Your task to perform on an android device: all mails in gmail Image 0: 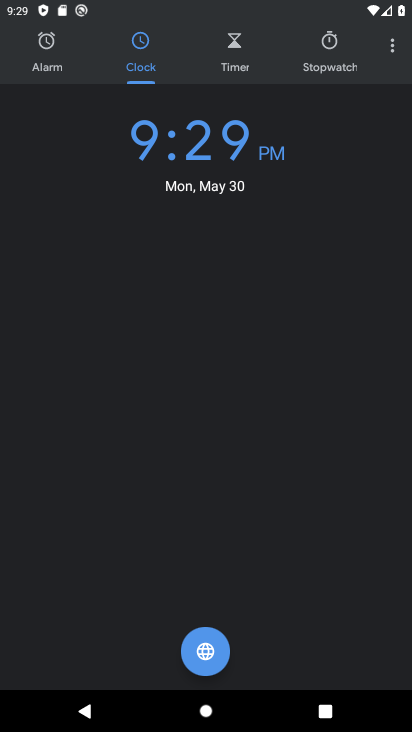
Step 0: press home button
Your task to perform on an android device: all mails in gmail Image 1: 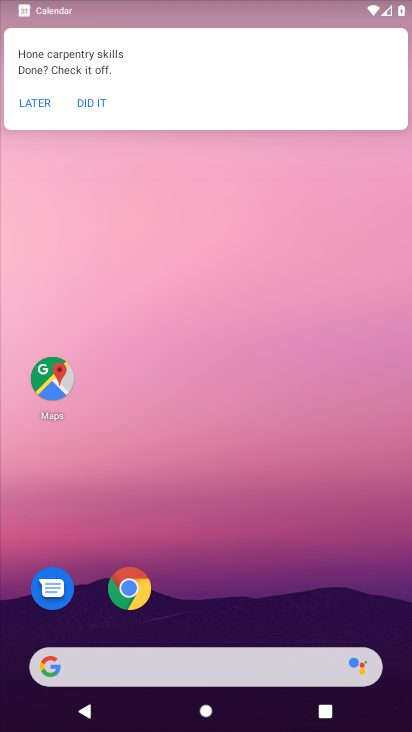
Step 1: drag from (209, 593) to (202, 2)
Your task to perform on an android device: all mails in gmail Image 2: 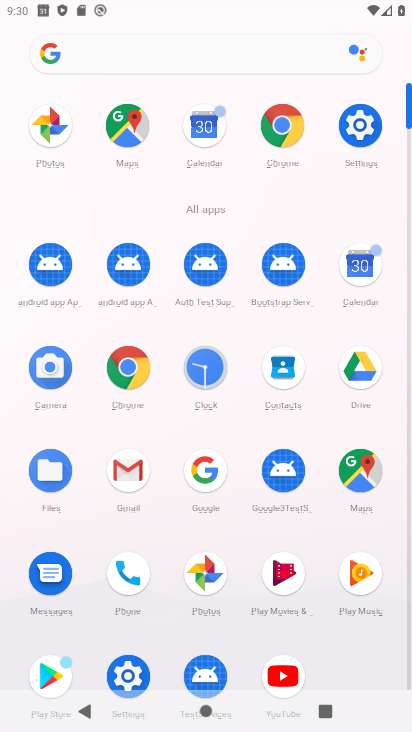
Step 2: click (116, 469)
Your task to perform on an android device: all mails in gmail Image 3: 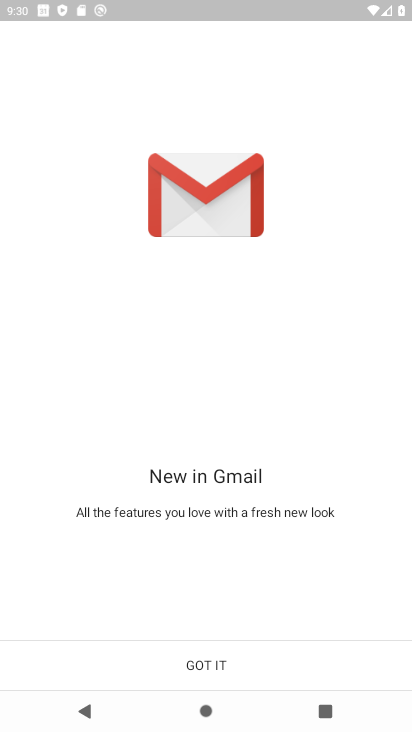
Step 3: click (230, 666)
Your task to perform on an android device: all mails in gmail Image 4: 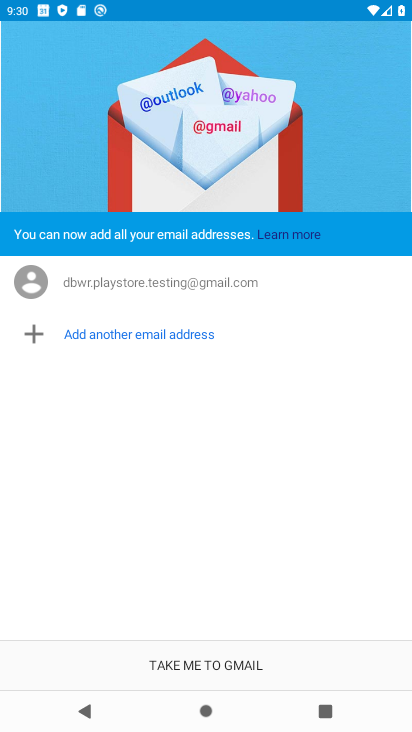
Step 4: click (239, 657)
Your task to perform on an android device: all mails in gmail Image 5: 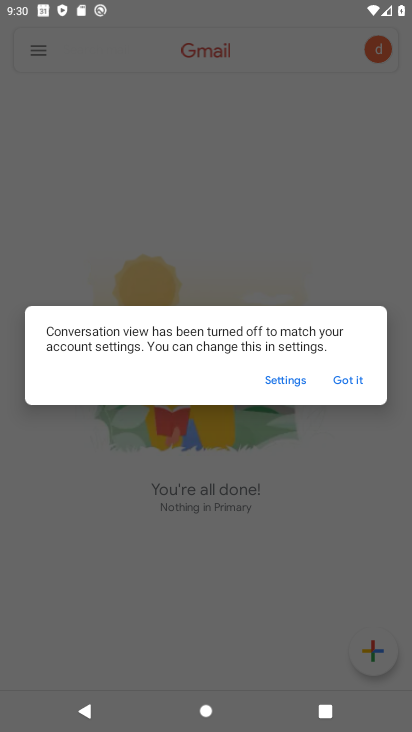
Step 5: click (346, 379)
Your task to perform on an android device: all mails in gmail Image 6: 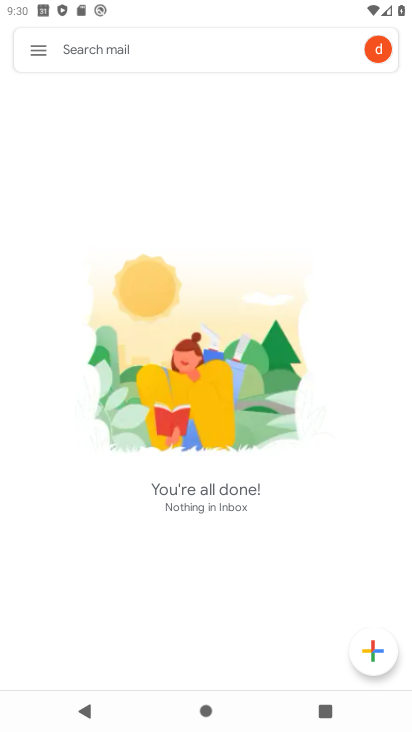
Step 6: click (49, 49)
Your task to perform on an android device: all mails in gmail Image 7: 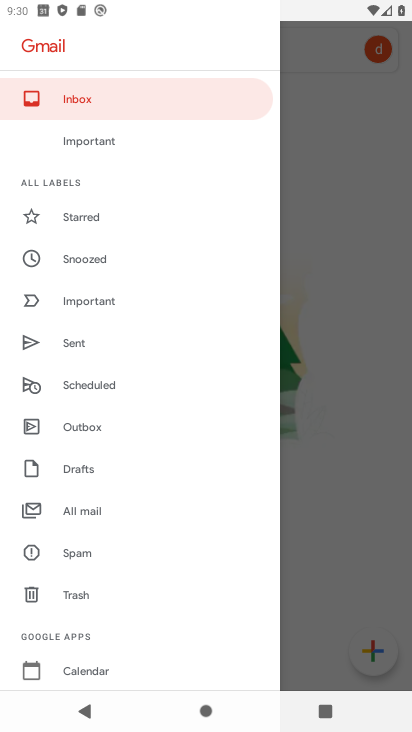
Step 7: click (93, 509)
Your task to perform on an android device: all mails in gmail Image 8: 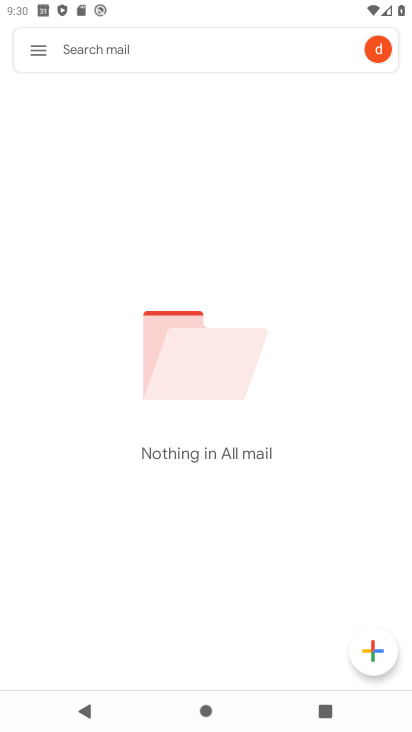
Step 8: task complete